Your task to perform on an android device: snooze an email in the gmail app Image 0: 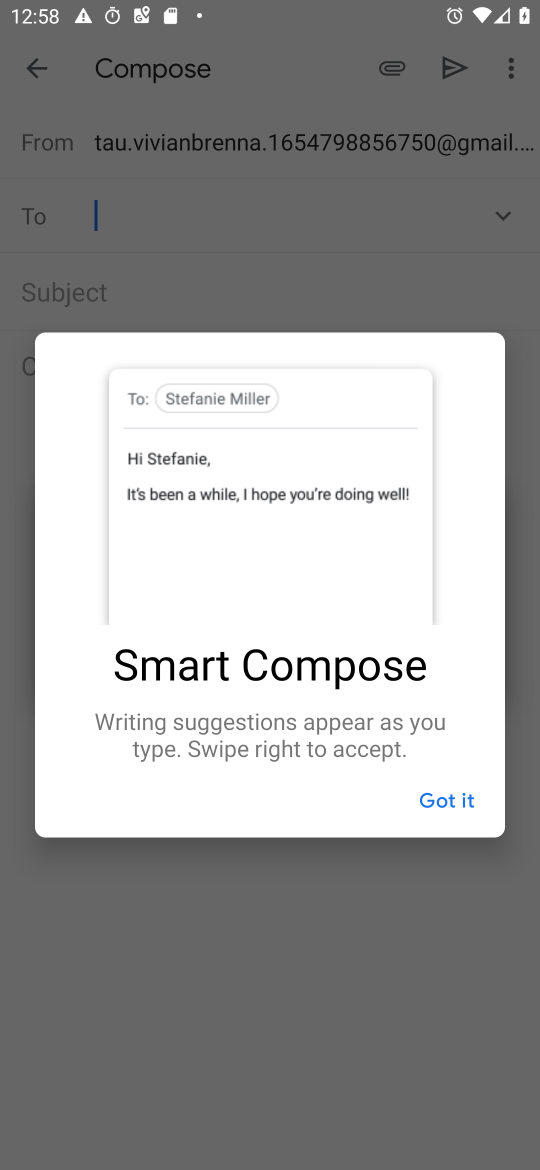
Step 0: press home button
Your task to perform on an android device: snooze an email in the gmail app Image 1: 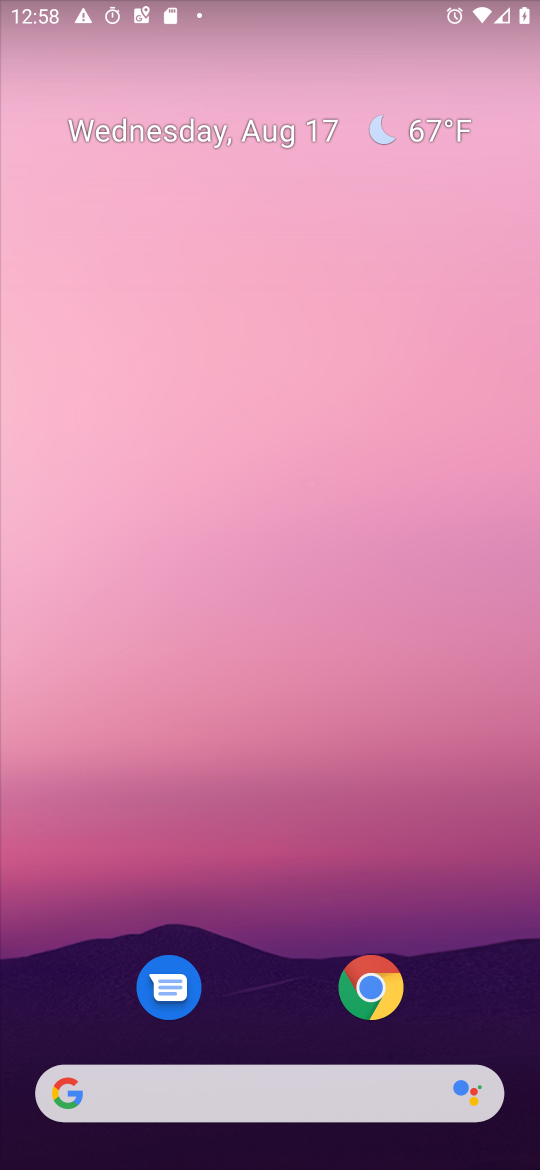
Step 1: drag from (53, 1159) to (362, 612)
Your task to perform on an android device: snooze an email in the gmail app Image 2: 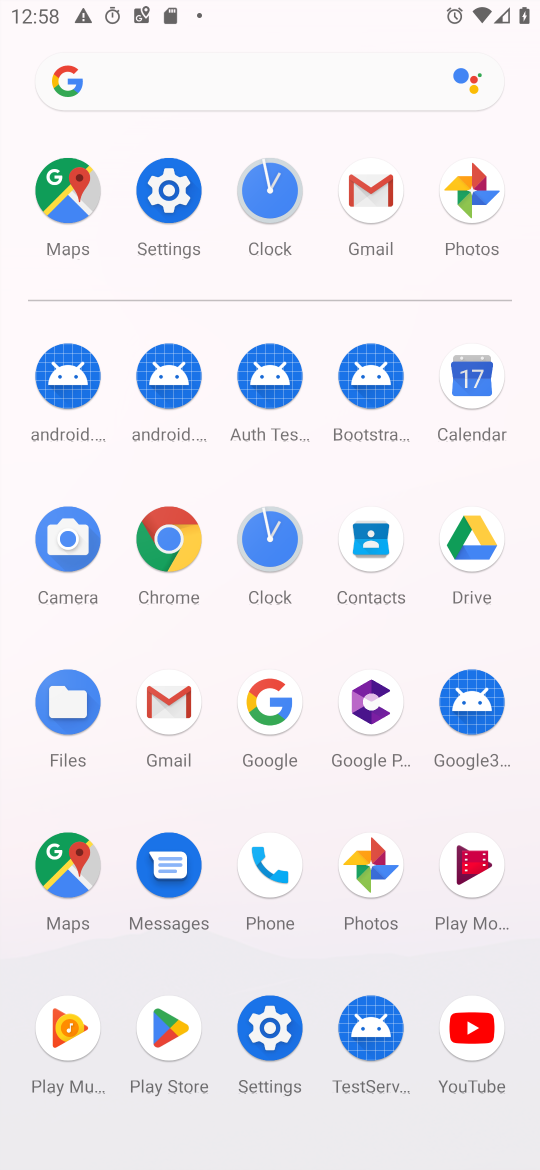
Step 2: click (198, 706)
Your task to perform on an android device: snooze an email in the gmail app Image 3: 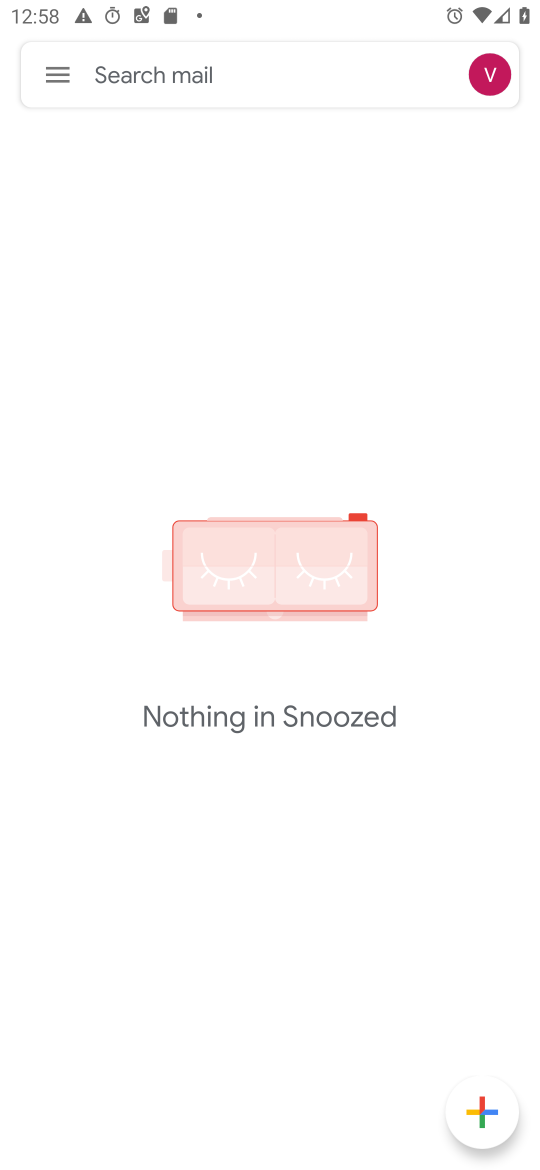
Step 3: click (56, 80)
Your task to perform on an android device: snooze an email in the gmail app Image 4: 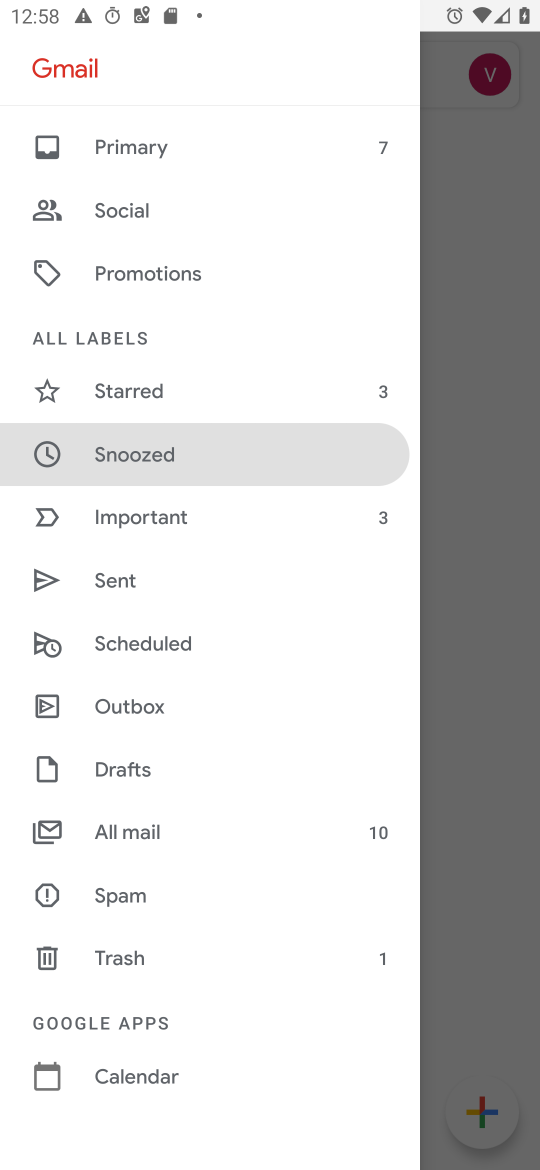
Step 4: click (109, 466)
Your task to perform on an android device: snooze an email in the gmail app Image 5: 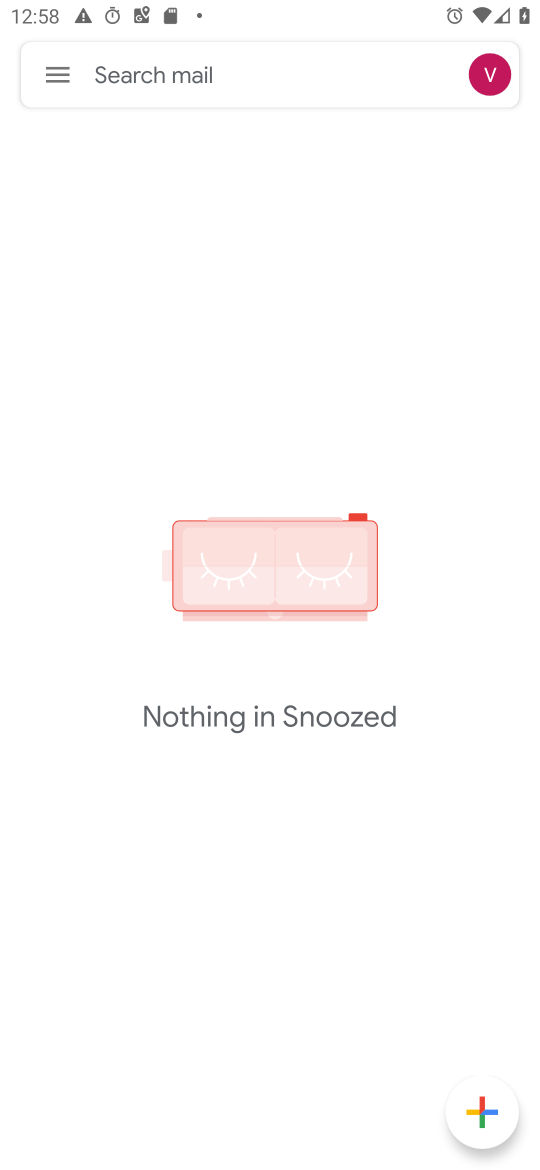
Step 5: task complete